Your task to perform on an android device: change the clock style Image 0: 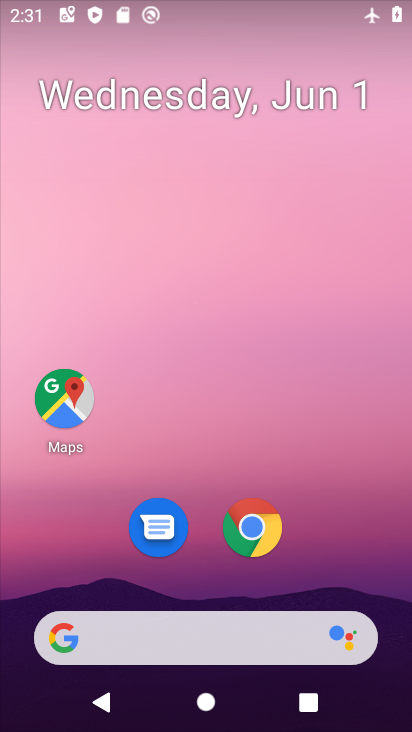
Step 0: drag from (329, 574) to (271, 196)
Your task to perform on an android device: change the clock style Image 1: 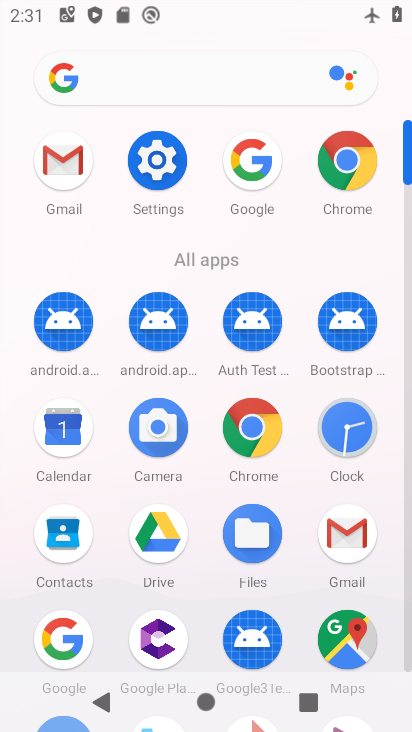
Step 1: click (349, 424)
Your task to perform on an android device: change the clock style Image 2: 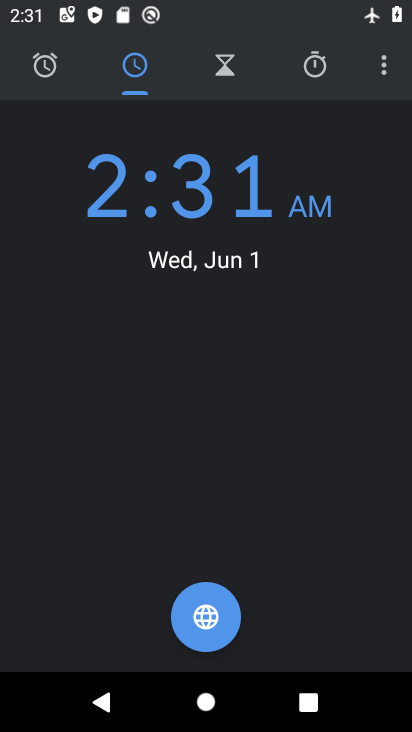
Step 2: click (388, 64)
Your task to perform on an android device: change the clock style Image 3: 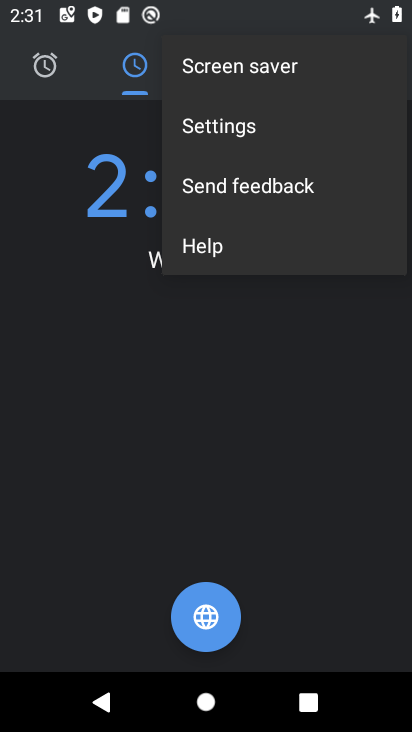
Step 3: click (234, 127)
Your task to perform on an android device: change the clock style Image 4: 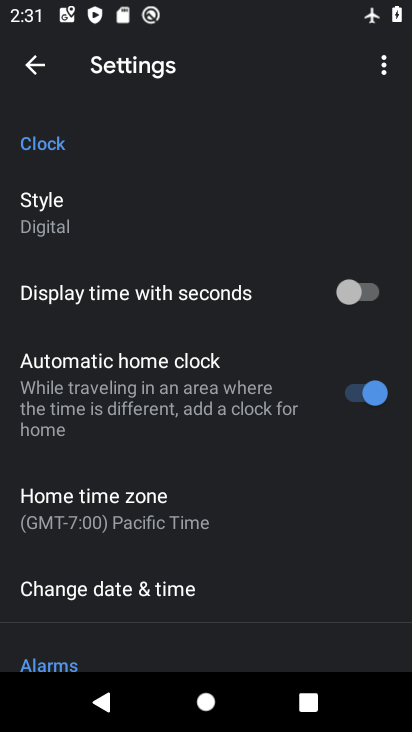
Step 4: click (119, 214)
Your task to perform on an android device: change the clock style Image 5: 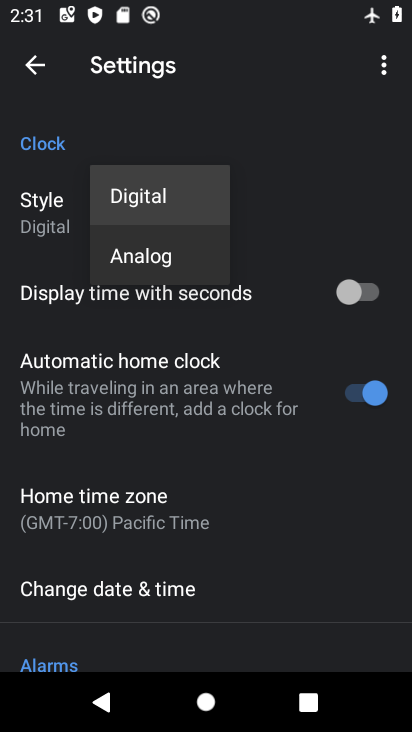
Step 5: click (138, 250)
Your task to perform on an android device: change the clock style Image 6: 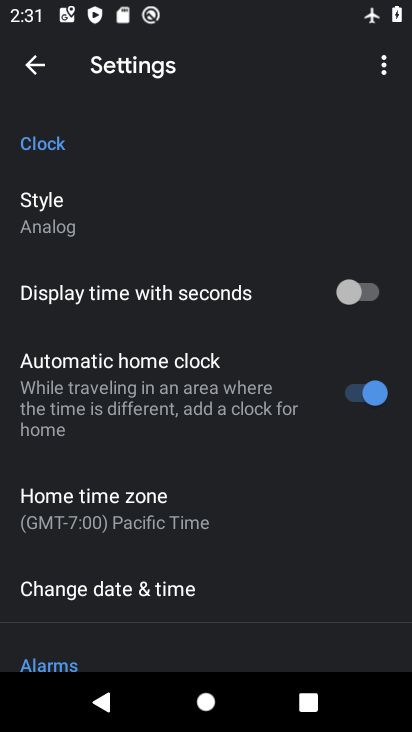
Step 6: task complete